Your task to perform on an android device: Open Maps and search for coffee Image 0: 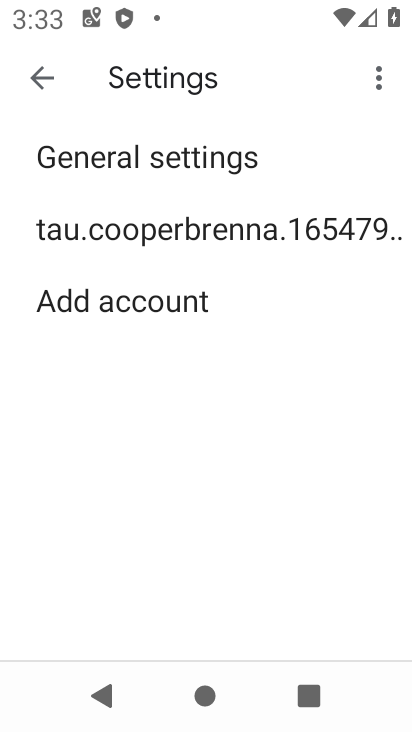
Step 0: press back button
Your task to perform on an android device: Open Maps and search for coffee Image 1: 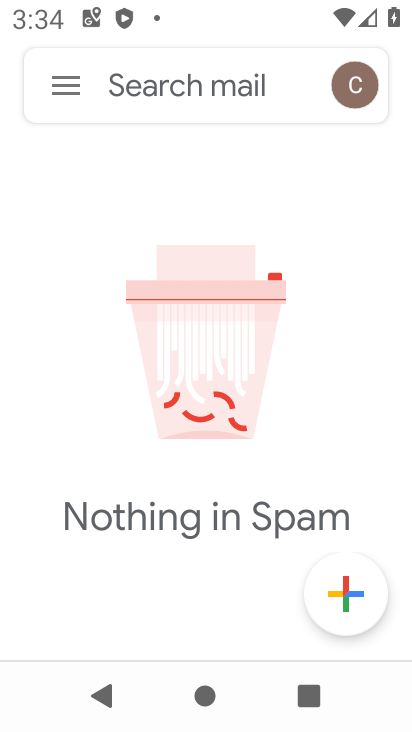
Step 1: press back button
Your task to perform on an android device: Open Maps and search for coffee Image 2: 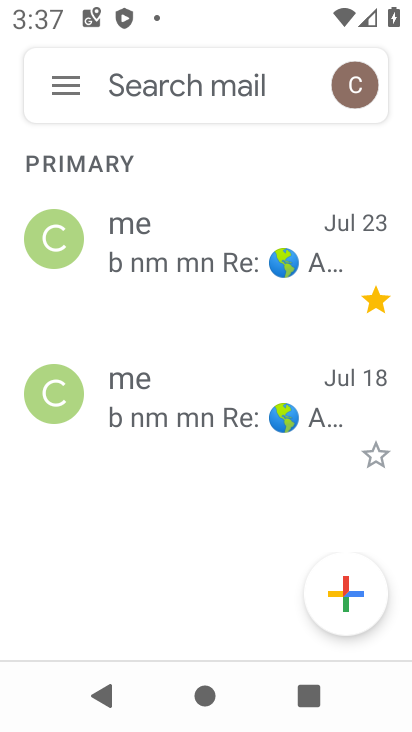
Step 2: press back button
Your task to perform on an android device: Open Maps and search for coffee Image 3: 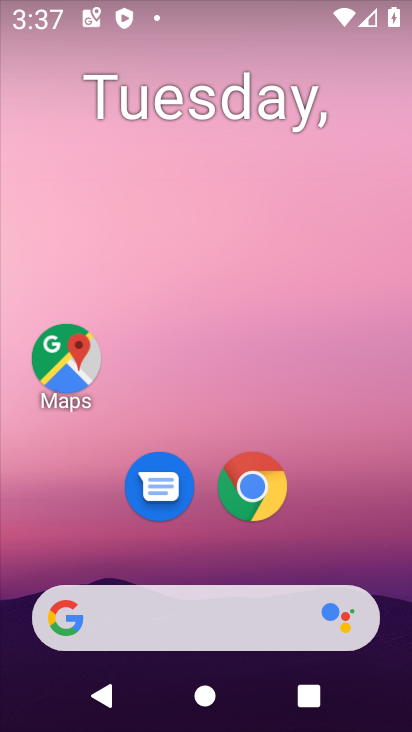
Step 3: click (50, 364)
Your task to perform on an android device: Open Maps and search for coffee Image 4: 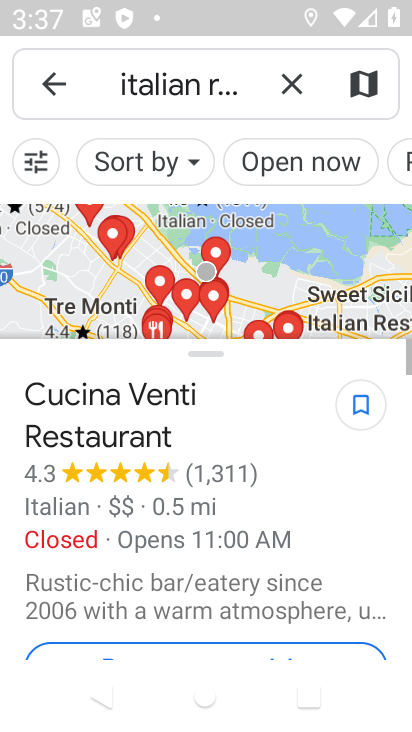
Step 4: click (282, 77)
Your task to perform on an android device: Open Maps and search for coffee Image 5: 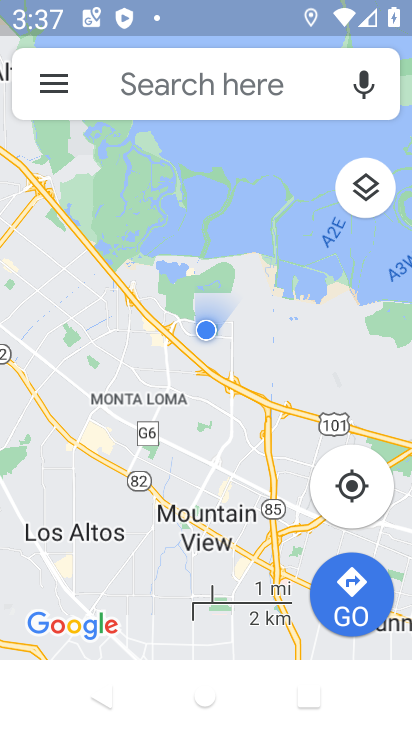
Step 5: click (193, 87)
Your task to perform on an android device: Open Maps and search for coffee Image 6: 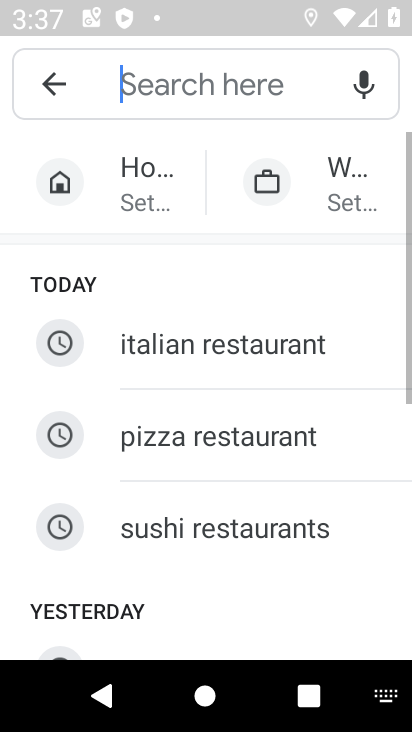
Step 6: drag from (221, 483) to (274, 11)
Your task to perform on an android device: Open Maps and search for coffee Image 7: 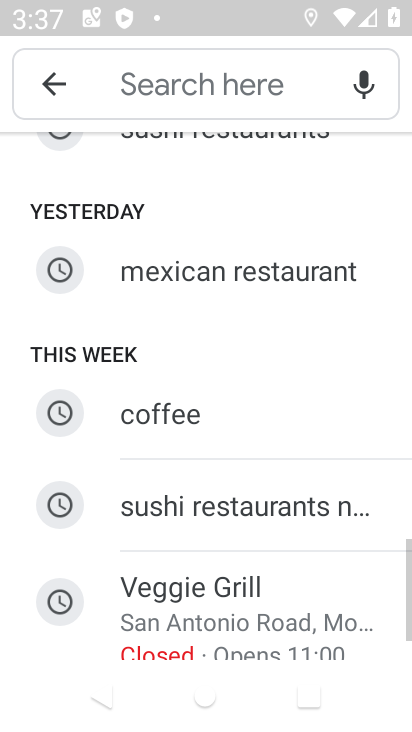
Step 7: click (185, 389)
Your task to perform on an android device: Open Maps and search for coffee Image 8: 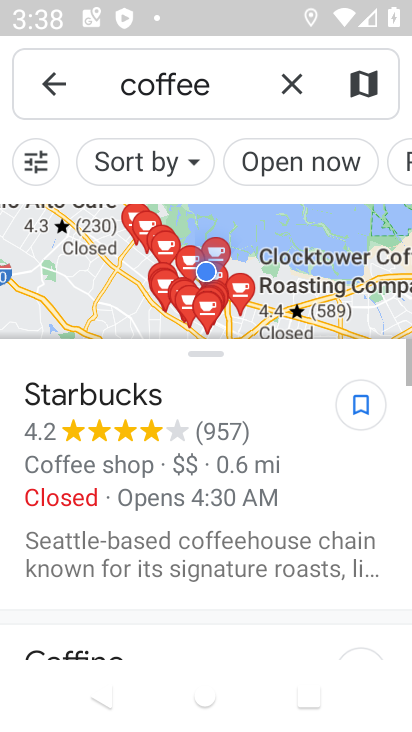
Step 8: task complete